Your task to perform on an android device: turn smart compose on in the gmail app Image 0: 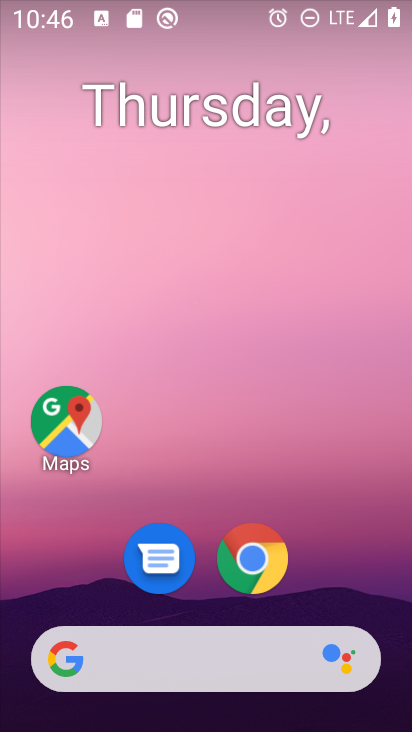
Step 0: drag from (397, 636) to (370, 109)
Your task to perform on an android device: turn smart compose on in the gmail app Image 1: 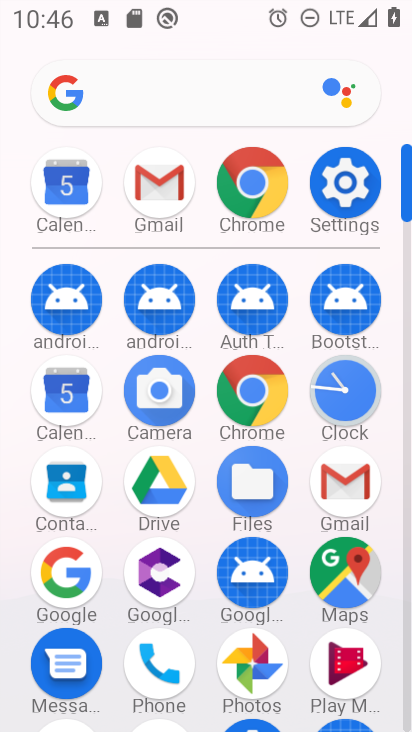
Step 1: click (408, 697)
Your task to perform on an android device: turn smart compose on in the gmail app Image 2: 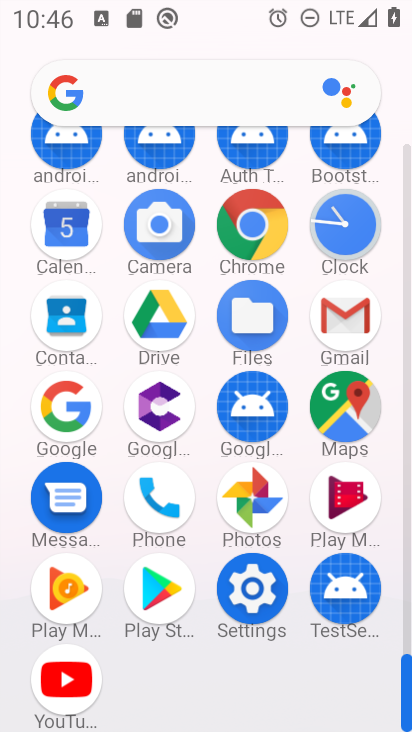
Step 2: click (345, 309)
Your task to perform on an android device: turn smart compose on in the gmail app Image 3: 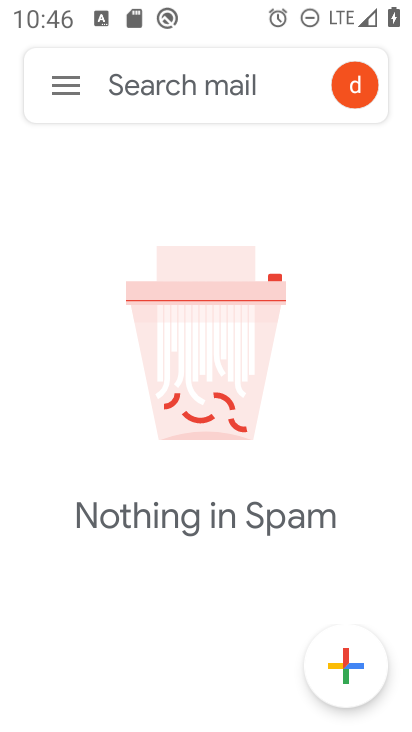
Step 3: click (64, 85)
Your task to perform on an android device: turn smart compose on in the gmail app Image 4: 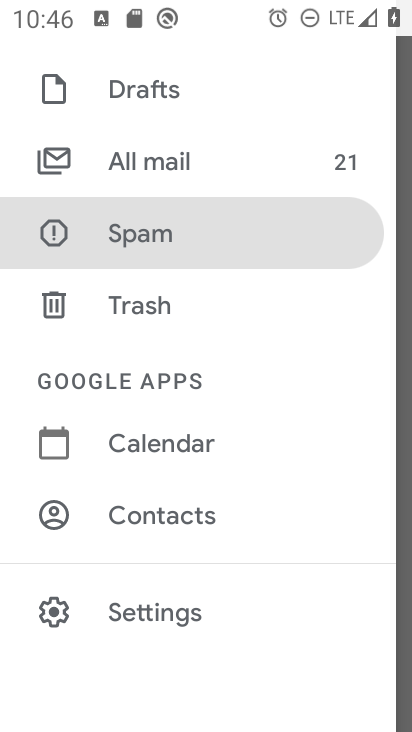
Step 4: click (159, 620)
Your task to perform on an android device: turn smart compose on in the gmail app Image 5: 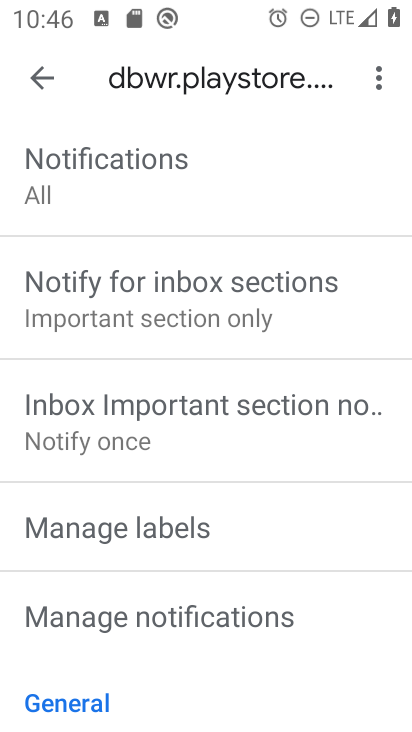
Step 5: task complete